Your task to perform on an android device: Show me popular videos on Youtube Image 0: 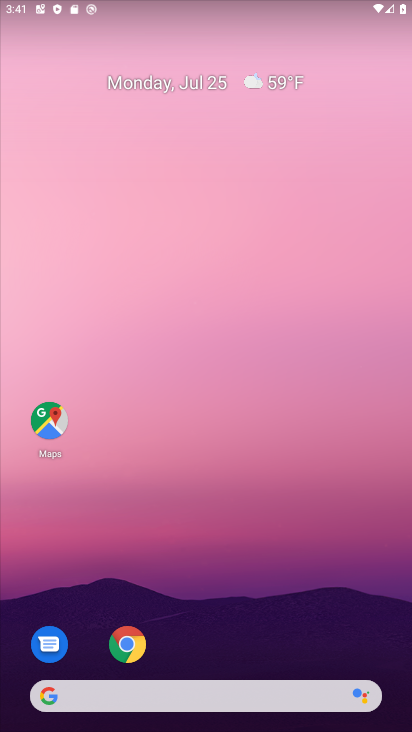
Step 0: drag from (210, 558) to (218, 242)
Your task to perform on an android device: Show me popular videos on Youtube Image 1: 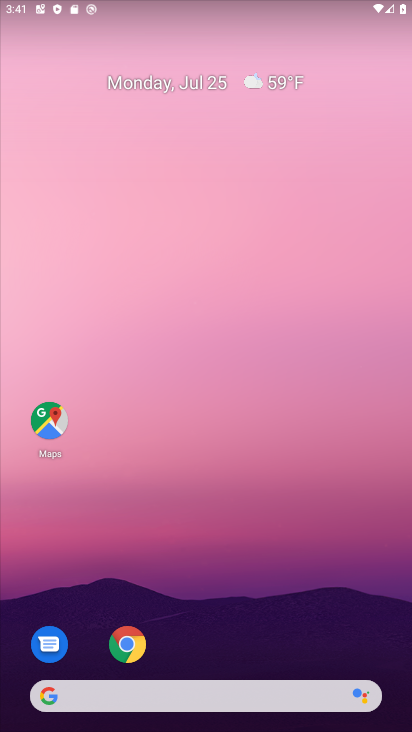
Step 1: drag from (266, 672) to (274, 170)
Your task to perform on an android device: Show me popular videos on Youtube Image 2: 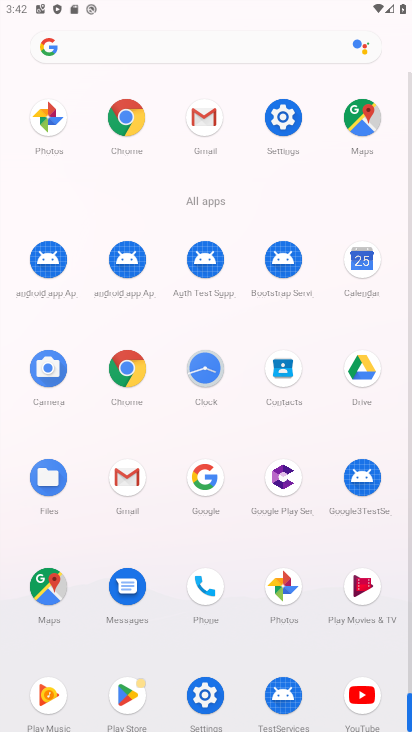
Step 2: click (356, 696)
Your task to perform on an android device: Show me popular videos on Youtube Image 3: 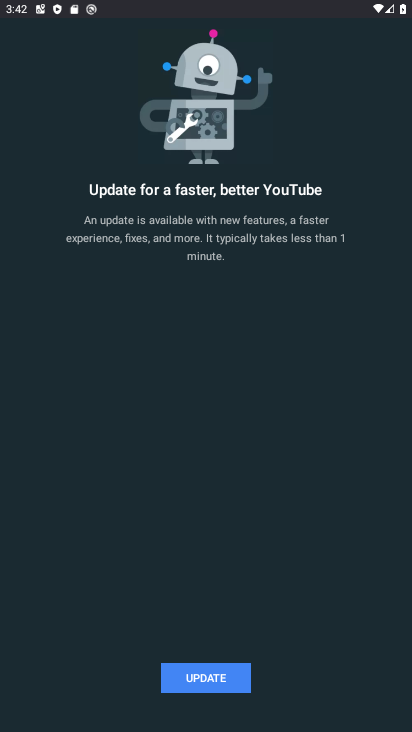
Step 3: click (216, 683)
Your task to perform on an android device: Show me popular videos on Youtube Image 4: 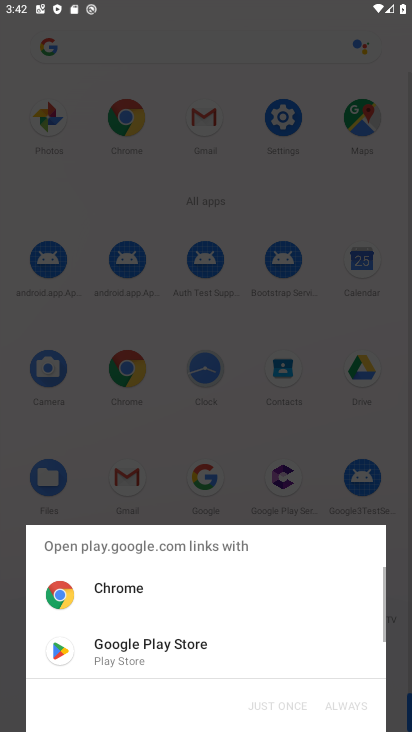
Step 4: click (113, 645)
Your task to perform on an android device: Show me popular videos on Youtube Image 5: 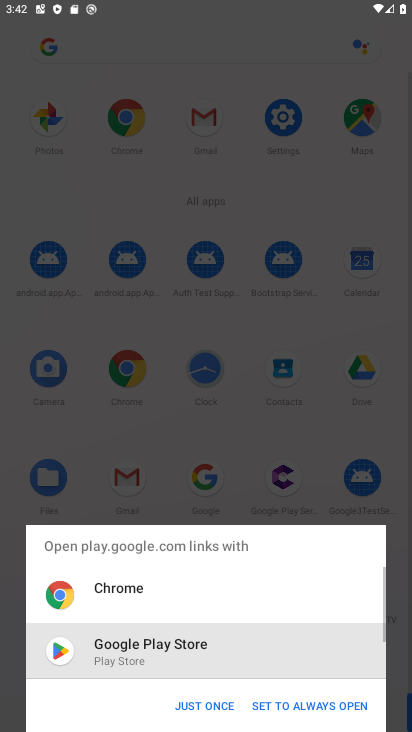
Step 5: click (203, 709)
Your task to perform on an android device: Show me popular videos on Youtube Image 6: 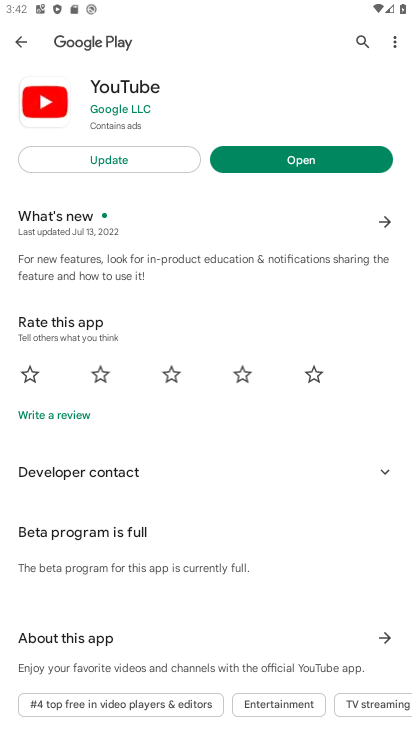
Step 6: click (99, 158)
Your task to perform on an android device: Show me popular videos on Youtube Image 7: 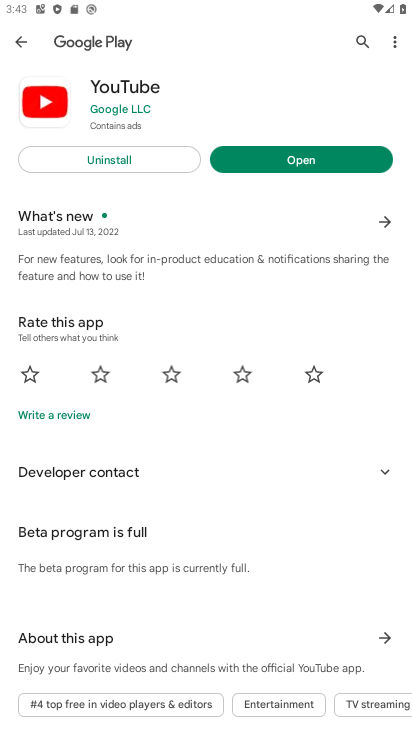
Step 7: click (266, 158)
Your task to perform on an android device: Show me popular videos on Youtube Image 8: 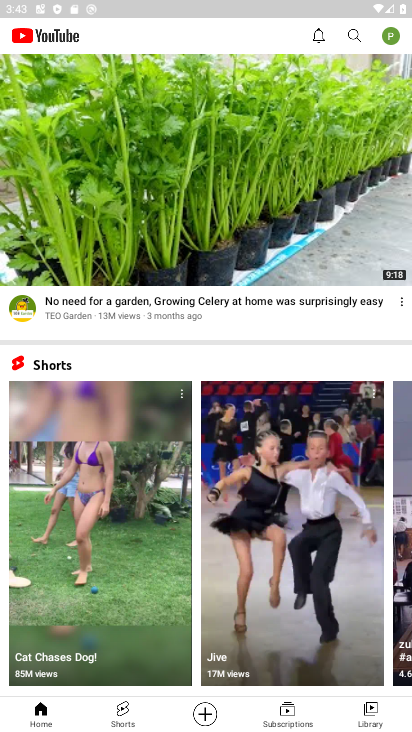
Step 8: task complete